Your task to perform on an android device: Go to Android settings Image 0: 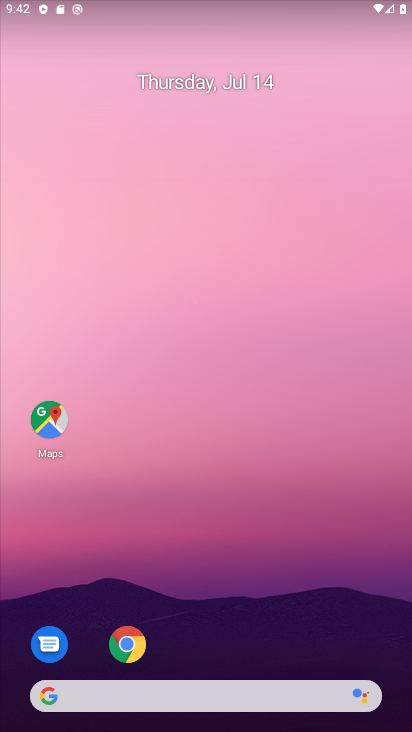
Step 0: drag from (231, 629) to (200, 80)
Your task to perform on an android device: Go to Android settings Image 1: 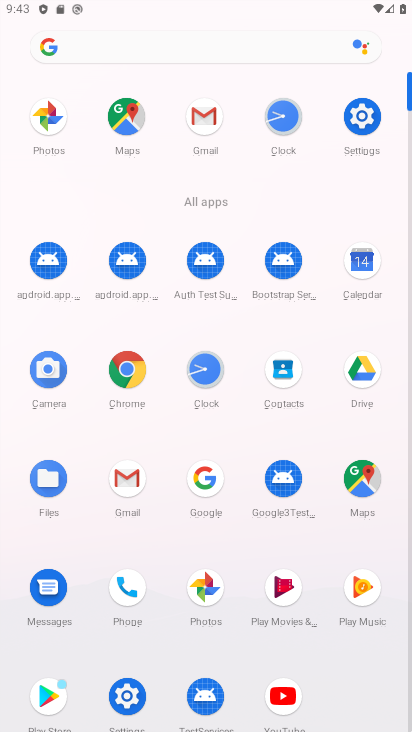
Step 1: click (367, 123)
Your task to perform on an android device: Go to Android settings Image 2: 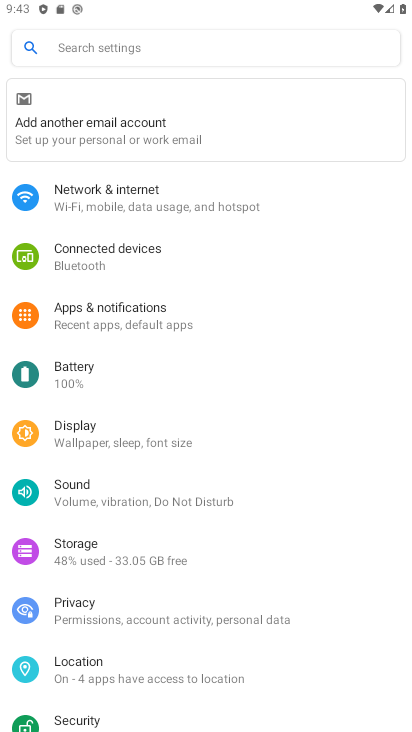
Step 2: task complete